Your task to perform on an android device: search for starred emails in the gmail app Image 0: 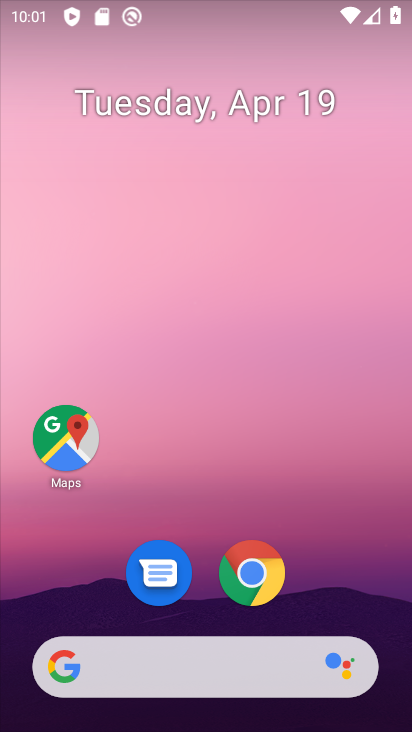
Step 0: drag from (354, 594) to (348, 86)
Your task to perform on an android device: search for starred emails in the gmail app Image 1: 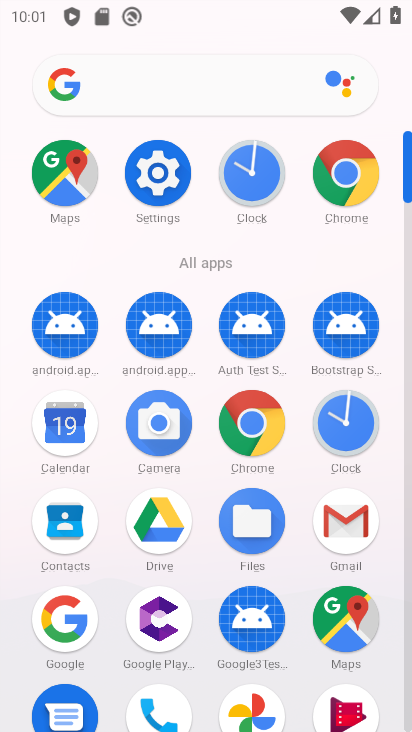
Step 1: click (343, 531)
Your task to perform on an android device: search for starred emails in the gmail app Image 2: 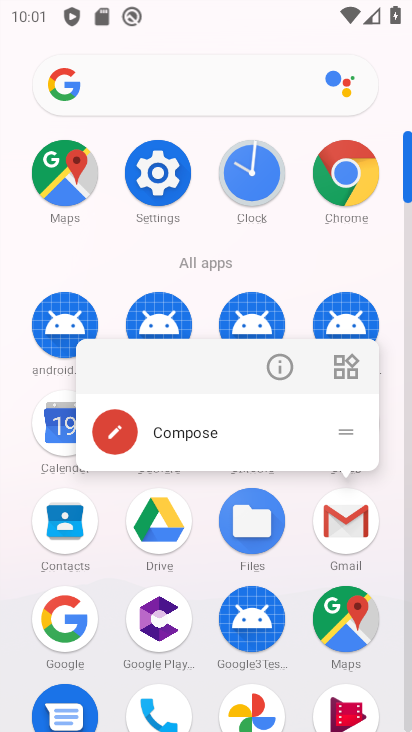
Step 2: click (343, 531)
Your task to perform on an android device: search for starred emails in the gmail app Image 3: 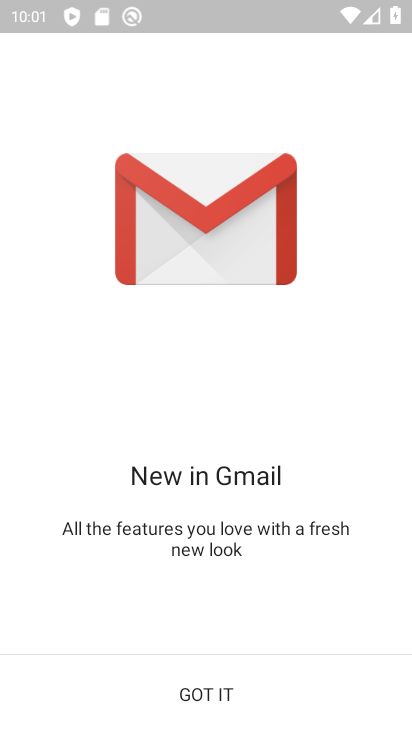
Step 3: click (225, 690)
Your task to perform on an android device: search for starred emails in the gmail app Image 4: 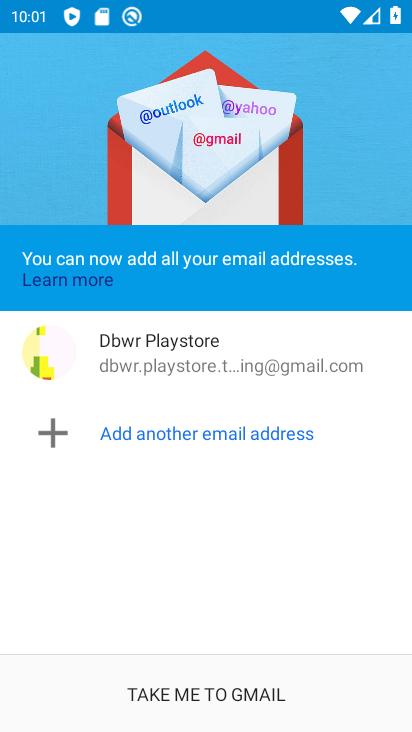
Step 4: click (259, 697)
Your task to perform on an android device: search for starred emails in the gmail app Image 5: 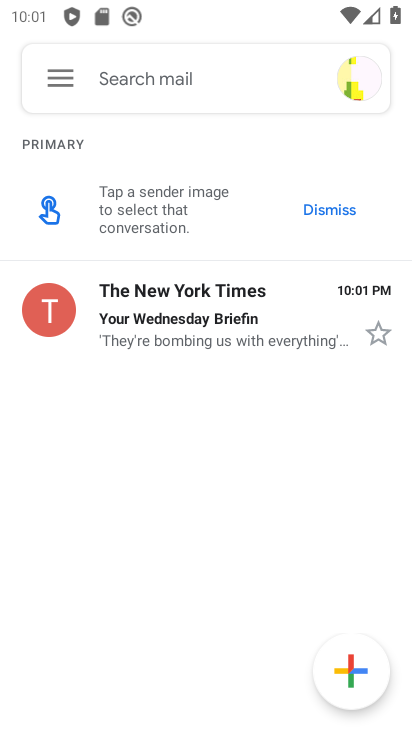
Step 5: click (63, 77)
Your task to perform on an android device: search for starred emails in the gmail app Image 6: 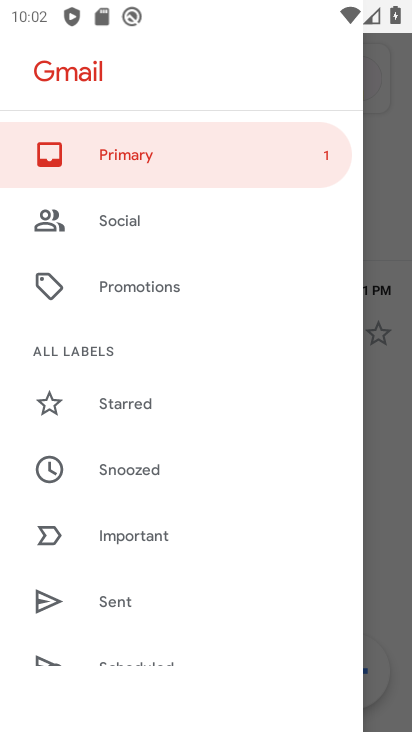
Step 6: click (122, 407)
Your task to perform on an android device: search for starred emails in the gmail app Image 7: 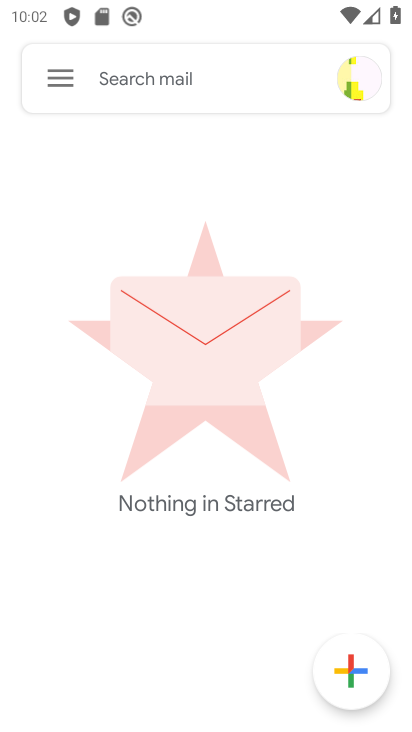
Step 7: task complete